Your task to perform on an android device: visit the assistant section in the google photos Image 0: 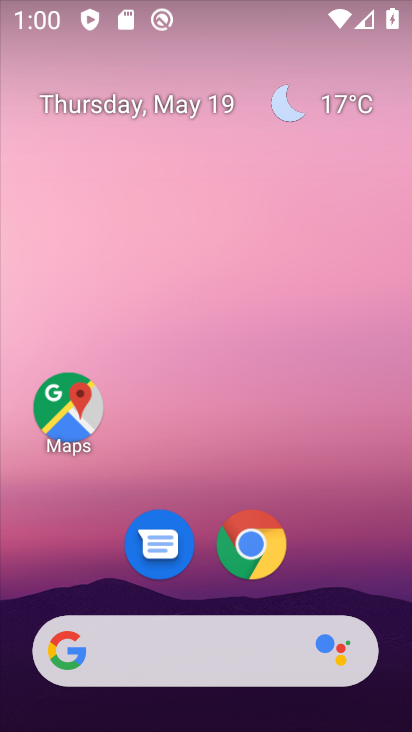
Step 0: drag from (212, 678) to (213, 29)
Your task to perform on an android device: visit the assistant section in the google photos Image 1: 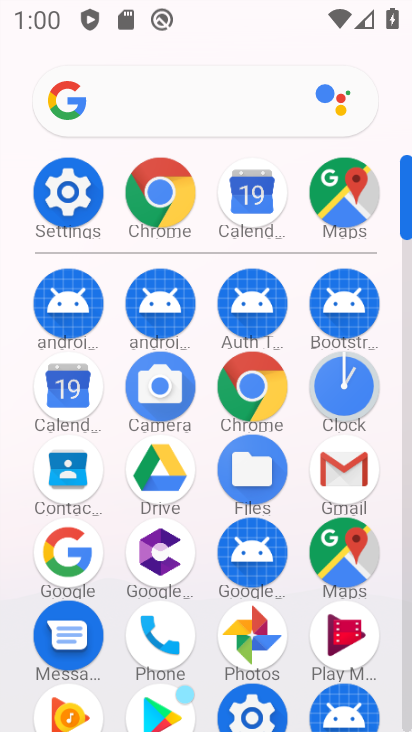
Step 1: click (239, 633)
Your task to perform on an android device: visit the assistant section in the google photos Image 2: 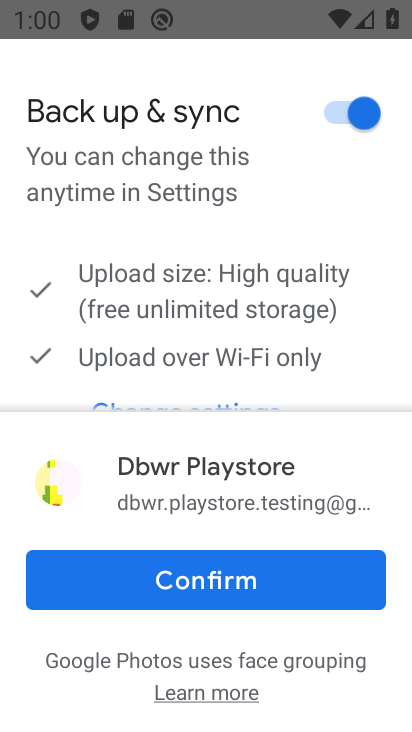
Step 2: click (198, 576)
Your task to perform on an android device: visit the assistant section in the google photos Image 3: 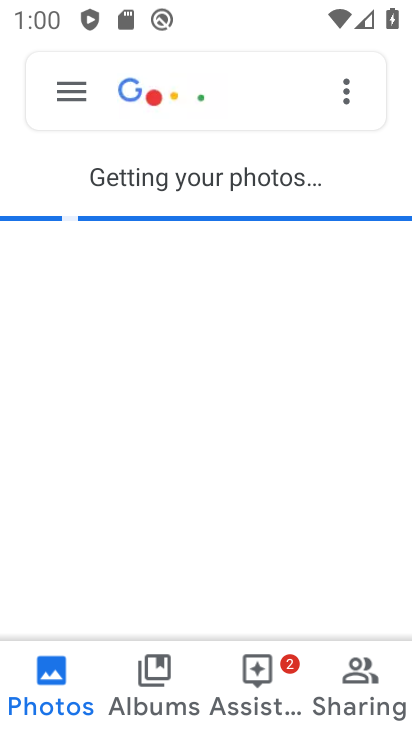
Step 3: click (241, 686)
Your task to perform on an android device: visit the assistant section in the google photos Image 4: 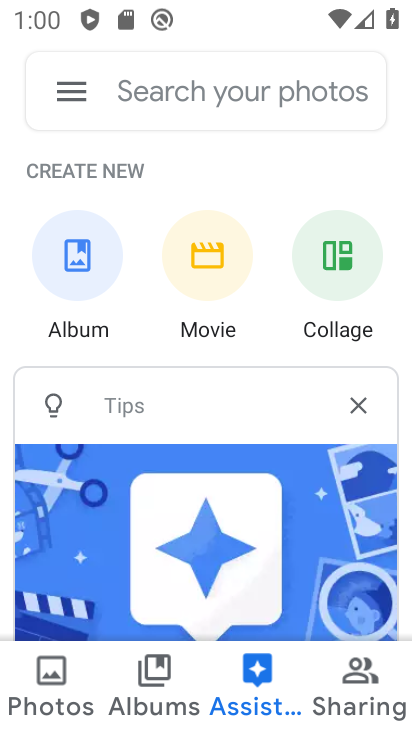
Step 4: task complete